Your task to perform on an android device: Open Reddit.com Image 0: 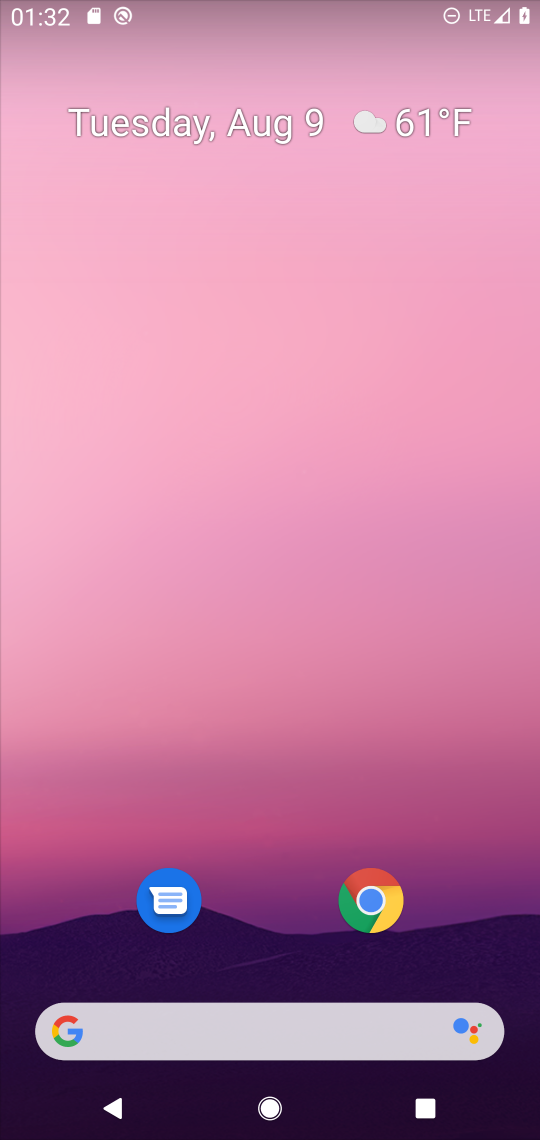
Step 0: drag from (258, 879) to (241, 84)
Your task to perform on an android device: Open Reddit.com Image 1: 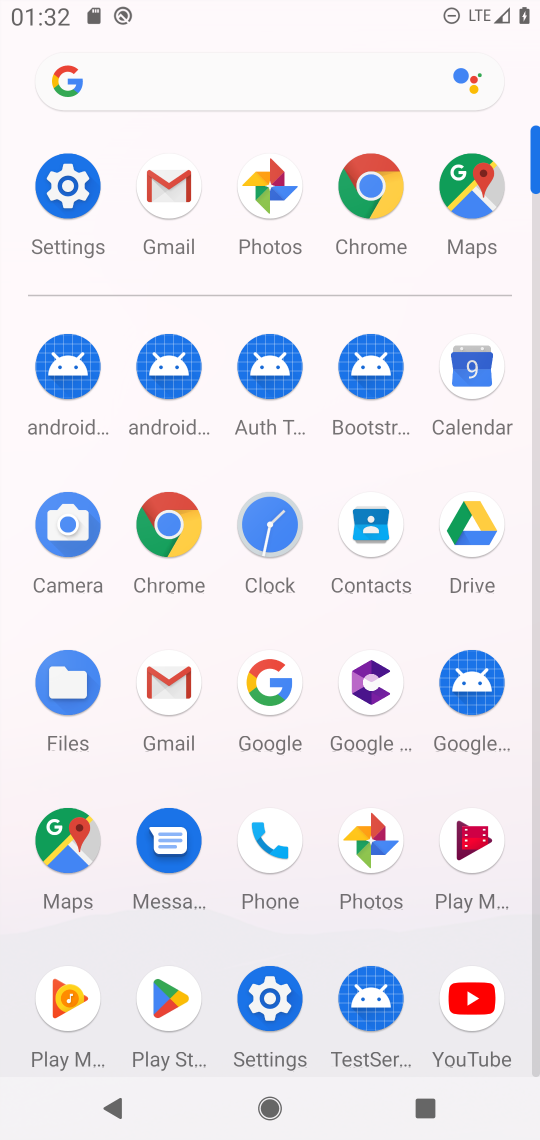
Step 1: click (165, 522)
Your task to perform on an android device: Open Reddit.com Image 2: 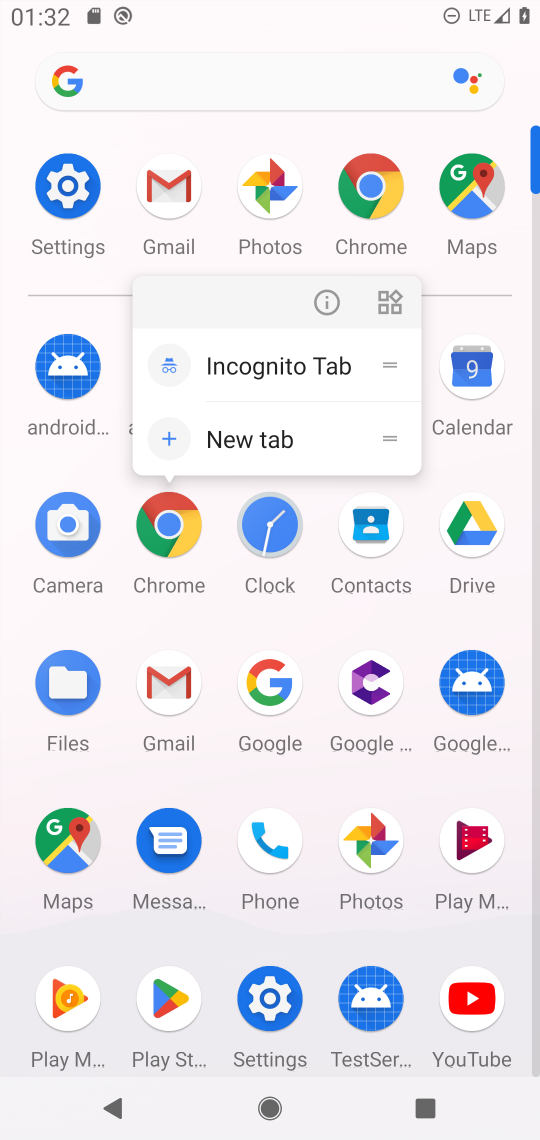
Step 2: click (165, 522)
Your task to perform on an android device: Open Reddit.com Image 3: 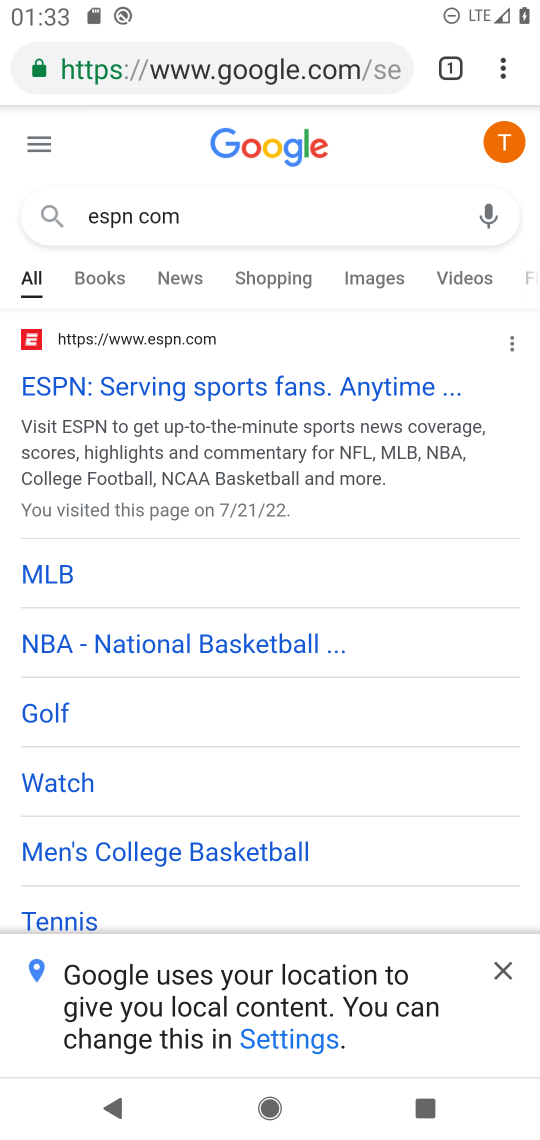
Step 3: click (307, 67)
Your task to perform on an android device: Open Reddit.com Image 4: 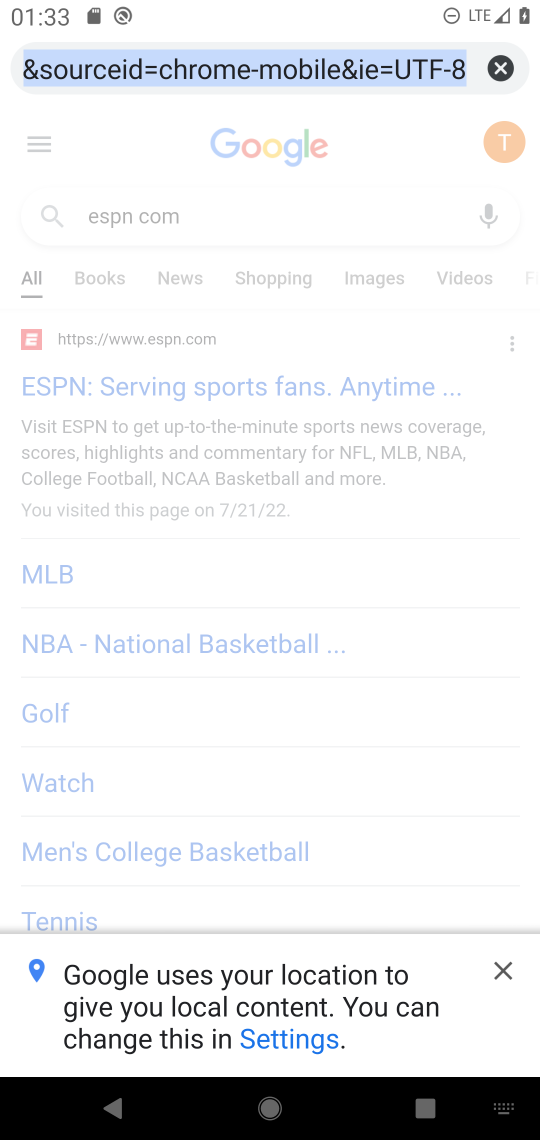
Step 4: type "reddit.com"
Your task to perform on an android device: Open Reddit.com Image 5: 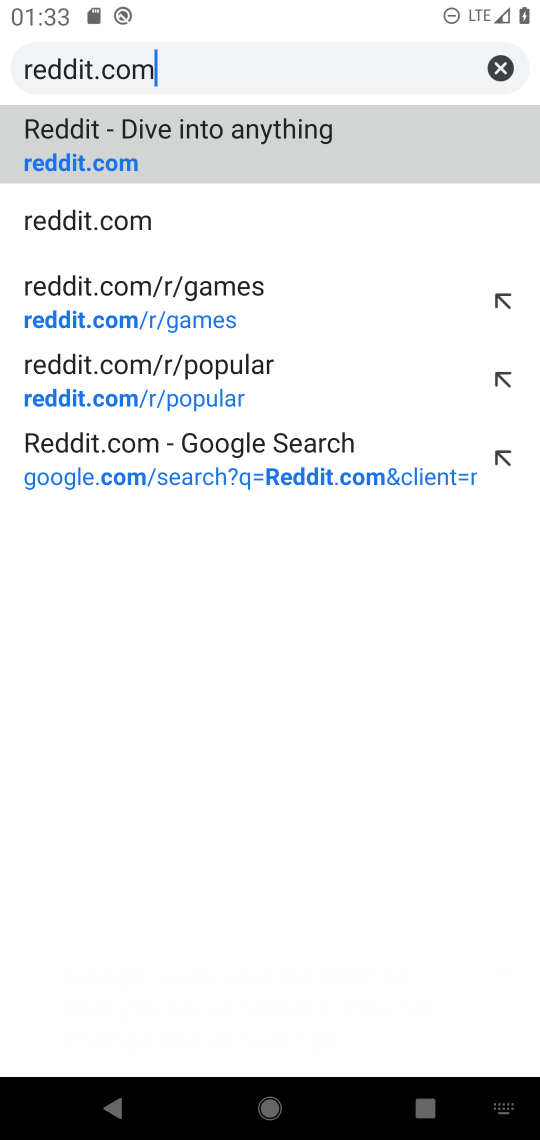
Step 5: click (342, 151)
Your task to perform on an android device: Open Reddit.com Image 6: 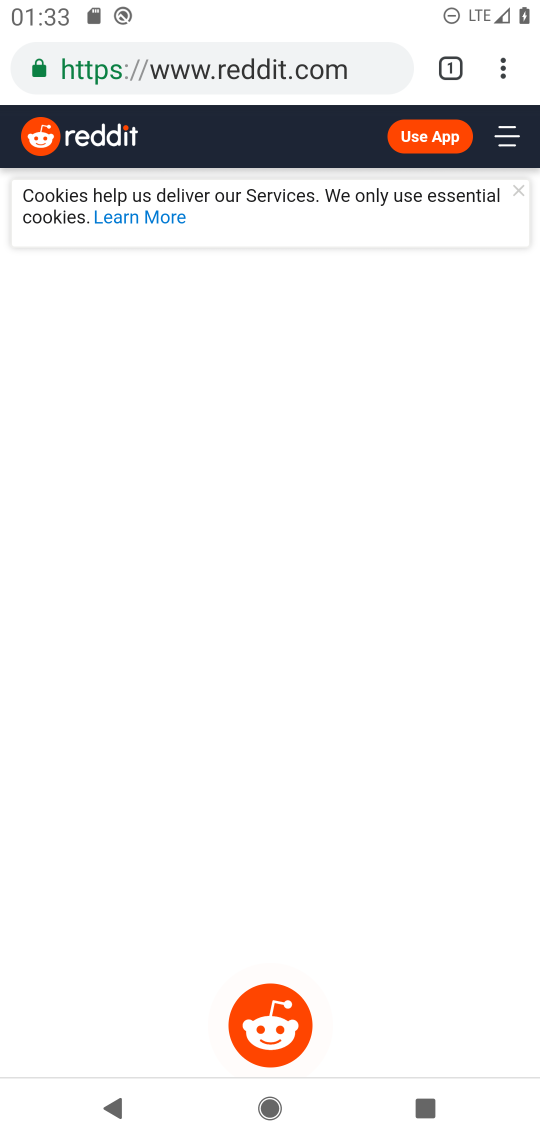
Step 6: task complete